Your task to perform on an android device: Open calendar and show me the second week of next month Image 0: 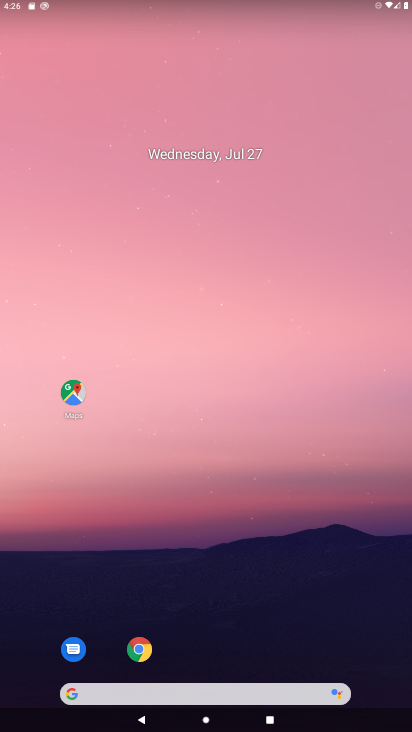
Step 0: drag from (288, 654) to (276, 250)
Your task to perform on an android device: Open calendar and show me the second week of next month Image 1: 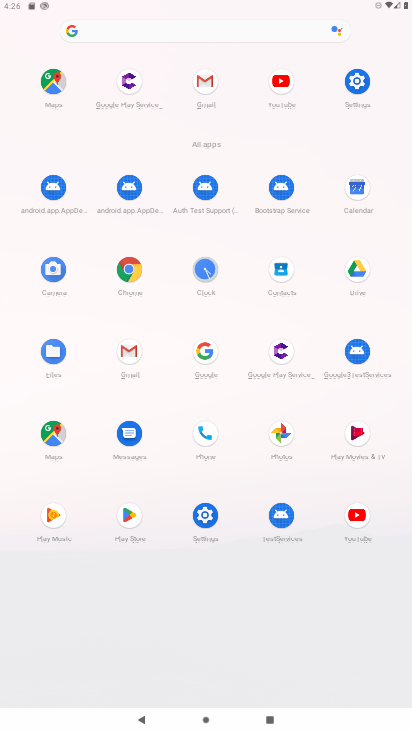
Step 1: click (353, 181)
Your task to perform on an android device: Open calendar and show me the second week of next month Image 2: 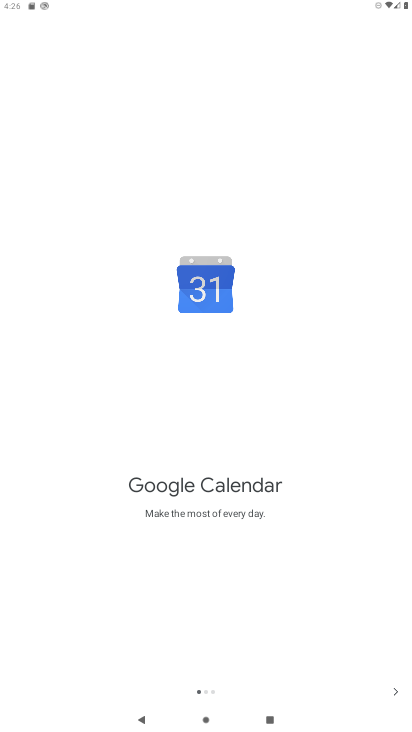
Step 2: click (391, 692)
Your task to perform on an android device: Open calendar and show me the second week of next month Image 3: 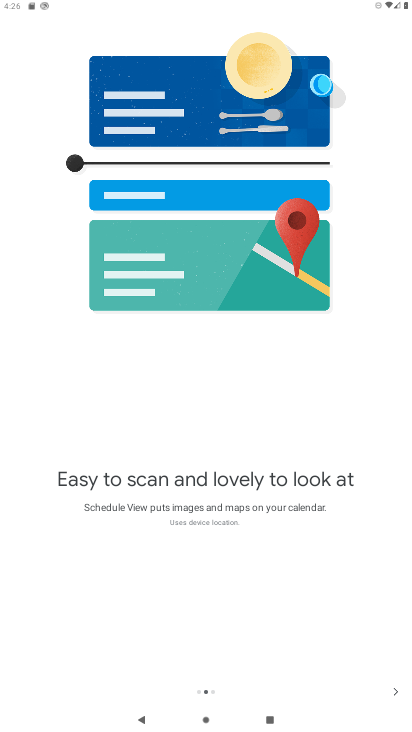
Step 3: click (391, 692)
Your task to perform on an android device: Open calendar and show me the second week of next month Image 4: 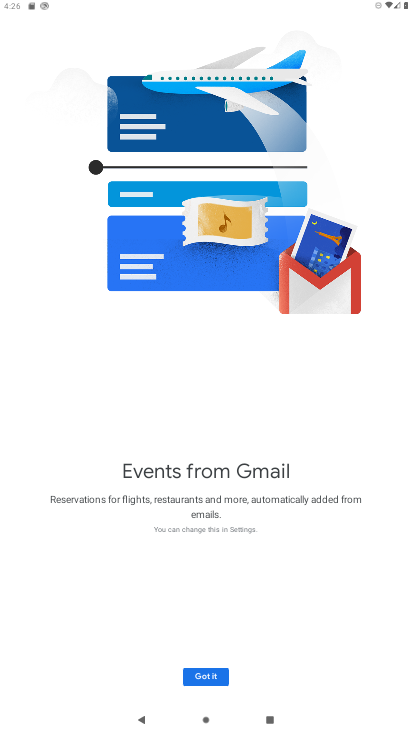
Step 4: click (186, 684)
Your task to perform on an android device: Open calendar and show me the second week of next month Image 5: 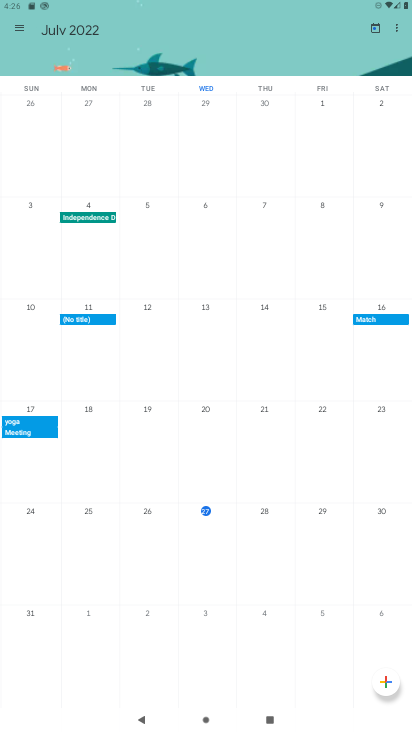
Step 5: click (25, 30)
Your task to perform on an android device: Open calendar and show me the second week of next month Image 6: 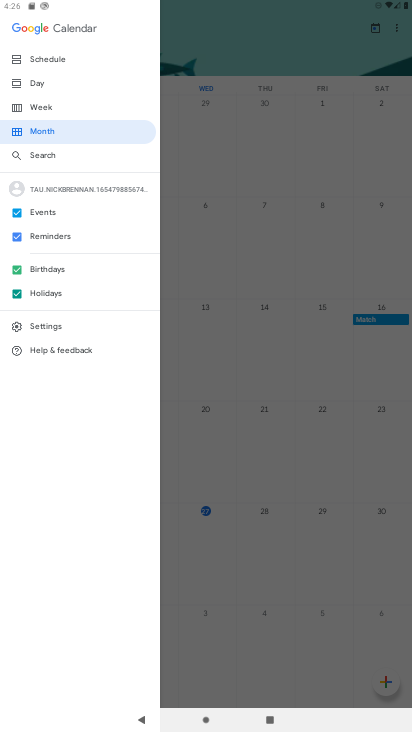
Step 6: click (59, 105)
Your task to perform on an android device: Open calendar and show me the second week of next month Image 7: 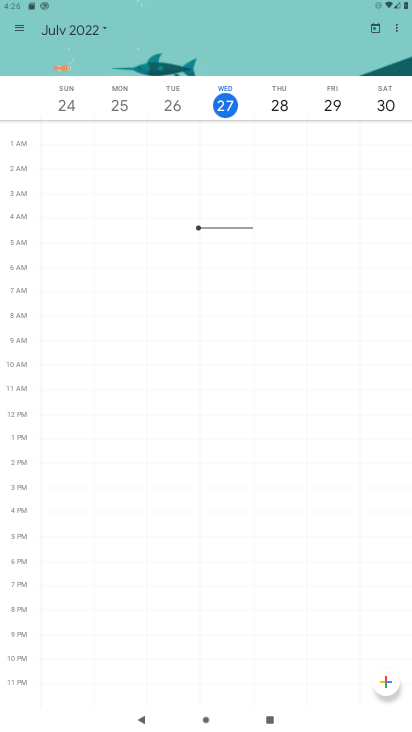
Step 7: click (104, 29)
Your task to perform on an android device: Open calendar and show me the second week of next month Image 8: 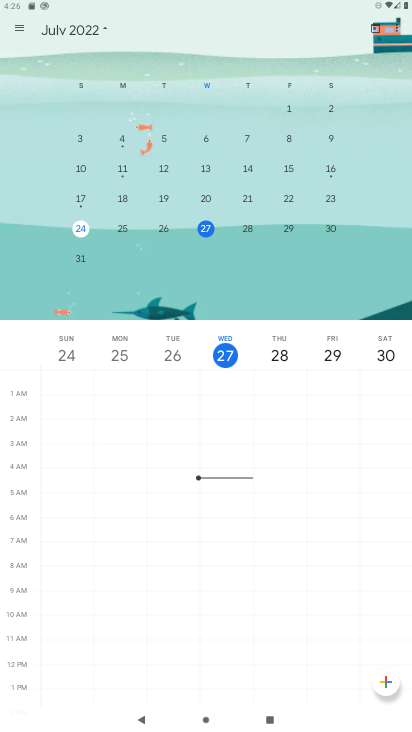
Step 8: drag from (348, 257) to (1, 222)
Your task to perform on an android device: Open calendar and show me the second week of next month Image 9: 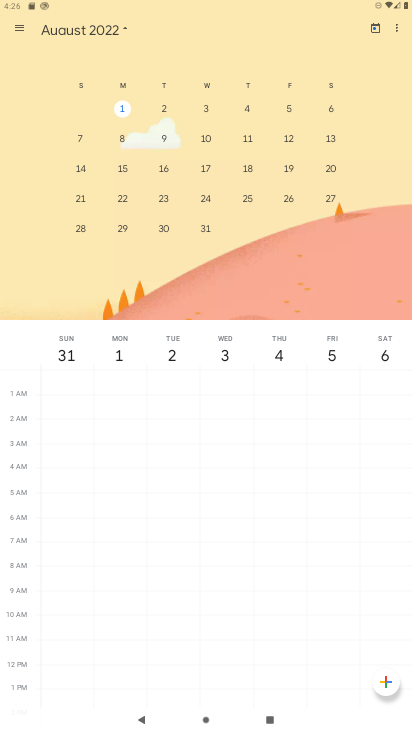
Step 9: click (209, 140)
Your task to perform on an android device: Open calendar and show me the second week of next month Image 10: 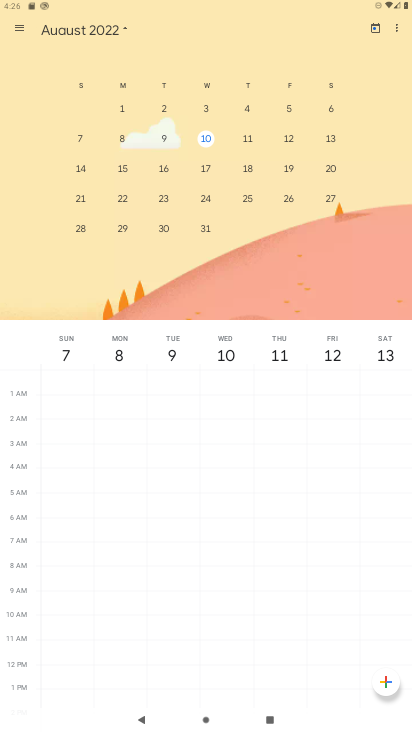
Step 10: task complete